Your task to perform on an android device: check google app version Image 0: 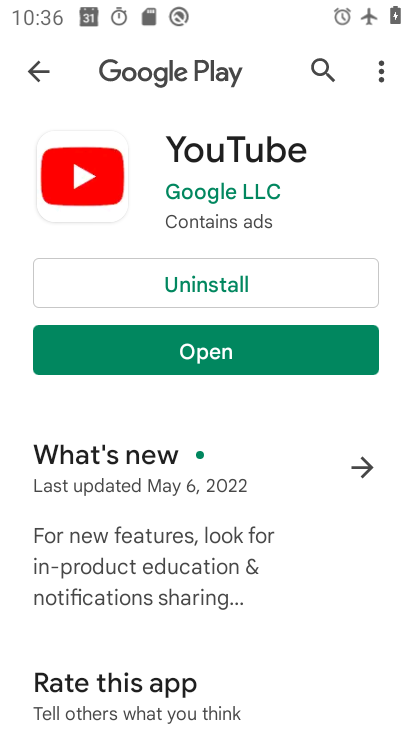
Step 0: press home button
Your task to perform on an android device: check google app version Image 1: 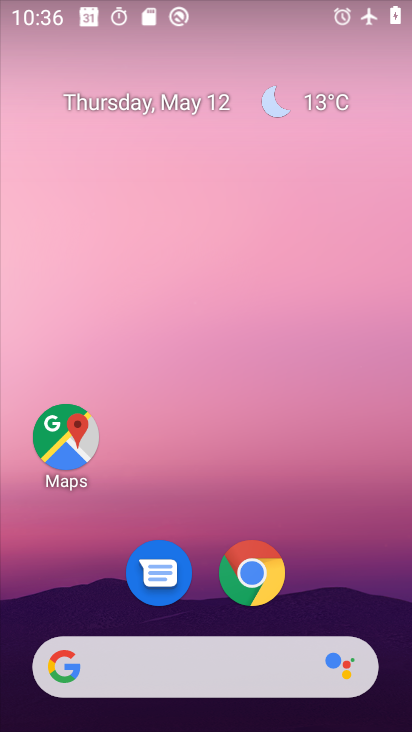
Step 1: drag from (396, 596) to (381, 133)
Your task to perform on an android device: check google app version Image 2: 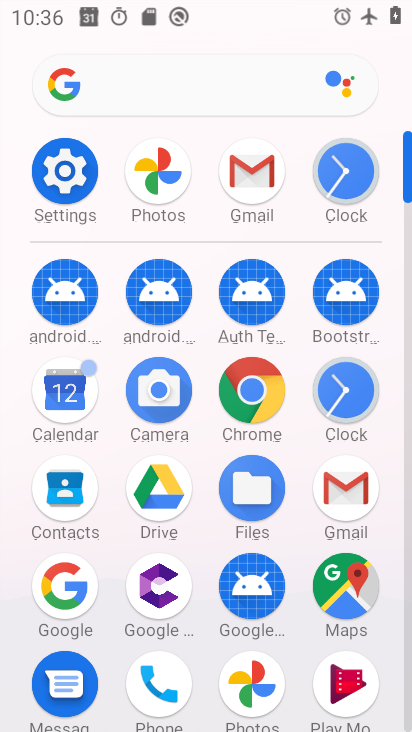
Step 2: click (66, 573)
Your task to perform on an android device: check google app version Image 3: 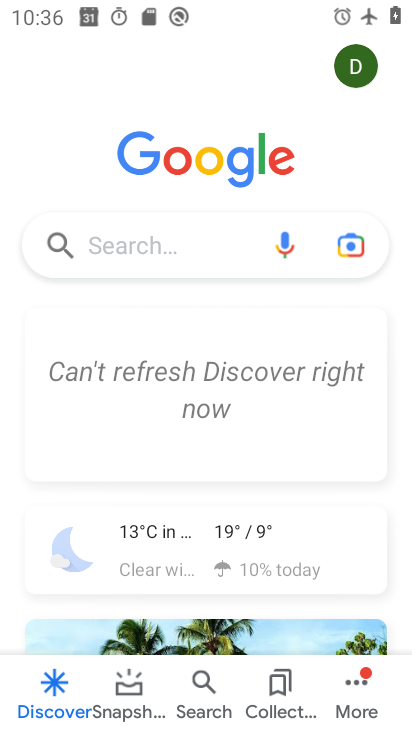
Step 3: drag from (304, 628) to (316, 397)
Your task to perform on an android device: check google app version Image 4: 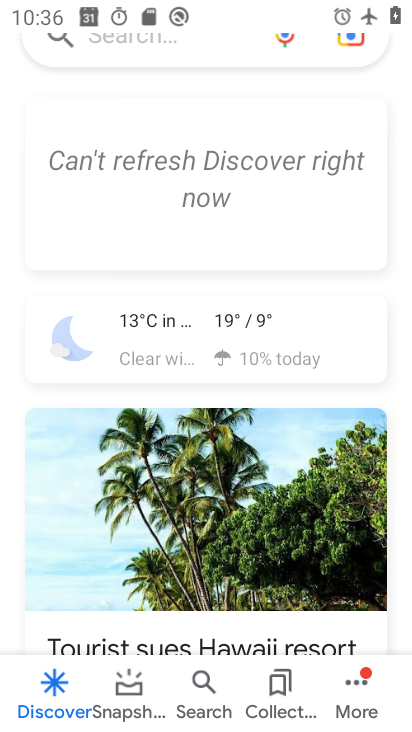
Step 4: click (369, 708)
Your task to perform on an android device: check google app version Image 5: 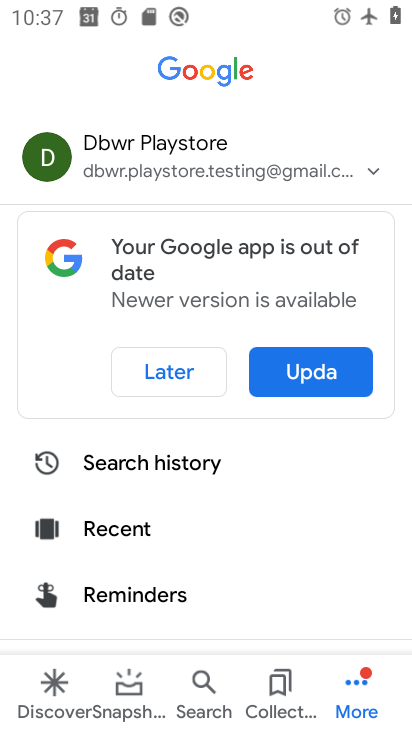
Step 5: click (298, 382)
Your task to perform on an android device: check google app version Image 6: 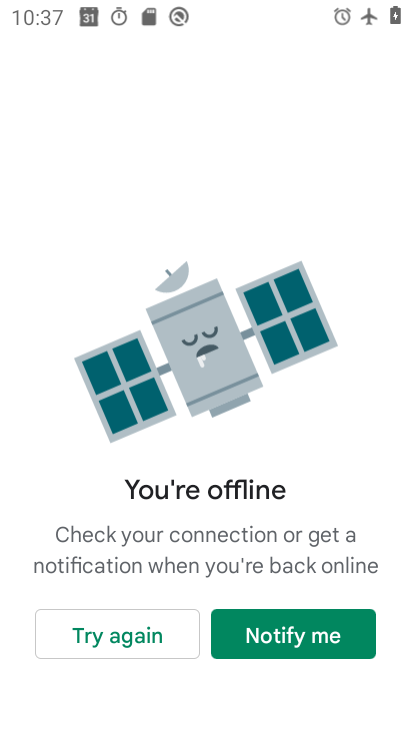
Step 6: task complete